Your task to perform on an android device: Open Youtube and go to the subscriptions tab Image 0: 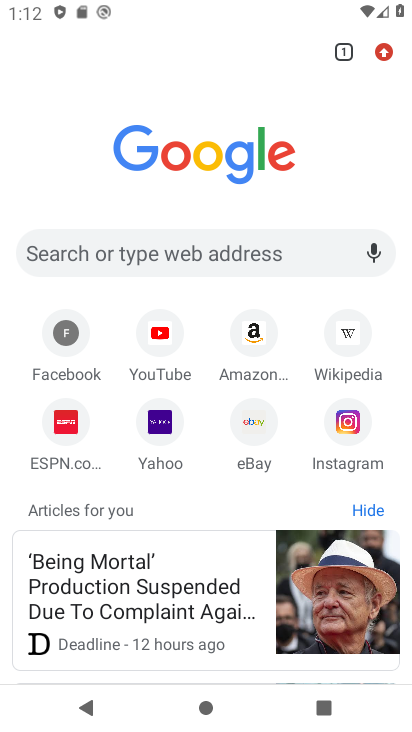
Step 0: press home button
Your task to perform on an android device: Open Youtube and go to the subscriptions tab Image 1: 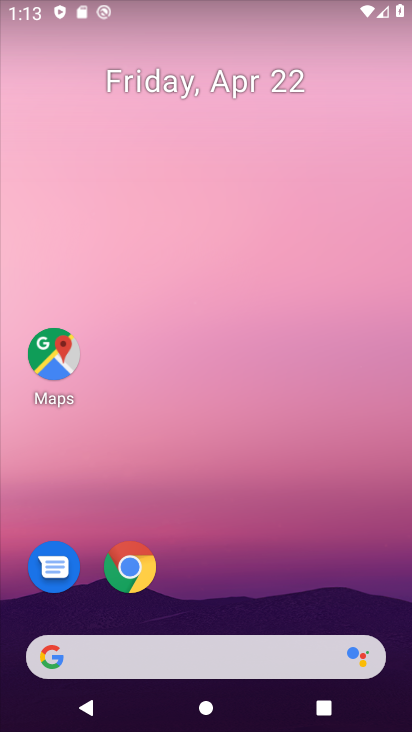
Step 1: drag from (222, 612) to (230, 228)
Your task to perform on an android device: Open Youtube and go to the subscriptions tab Image 2: 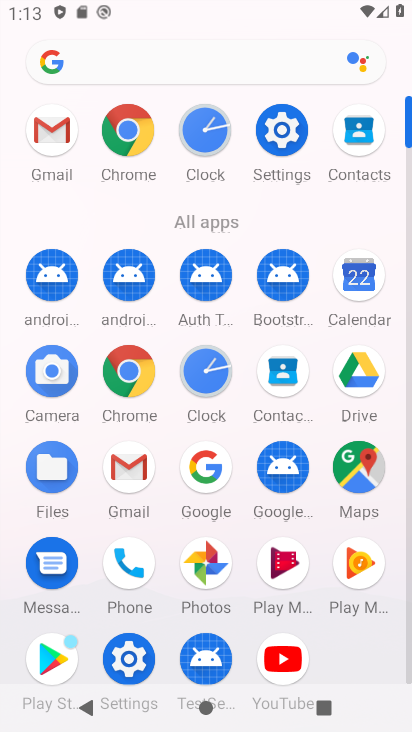
Step 2: click (277, 668)
Your task to perform on an android device: Open Youtube and go to the subscriptions tab Image 3: 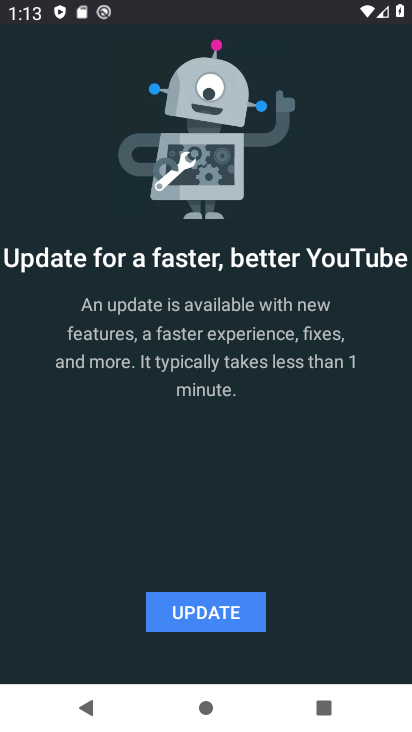
Step 3: click (239, 611)
Your task to perform on an android device: Open Youtube and go to the subscriptions tab Image 4: 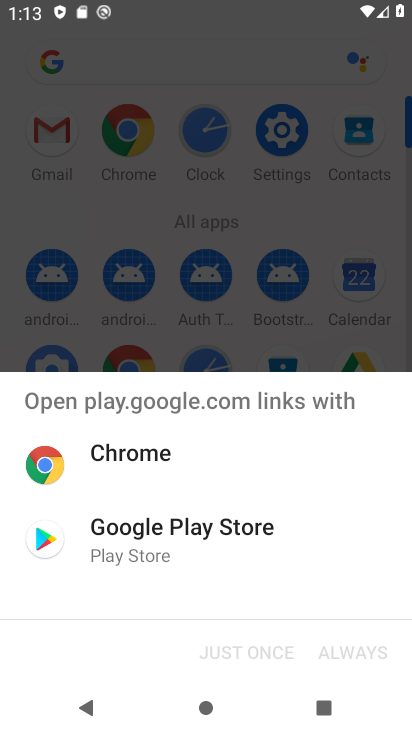
Step 4: click (224, 539)
Your task to perform on an android device: Open Youtube and go to the subscriptions tab Image 5: 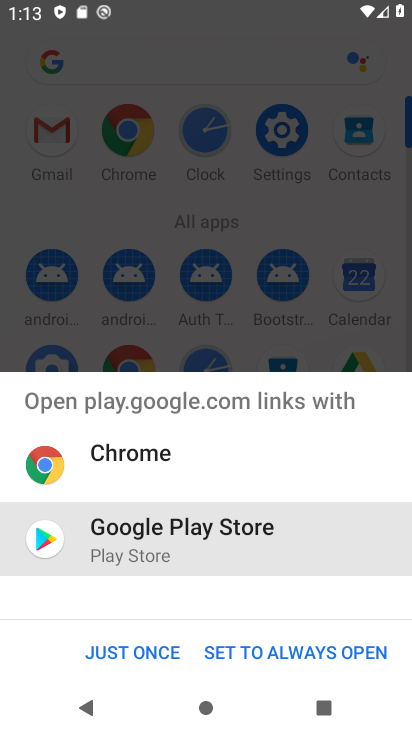
Step 5: click (132, 647)
Your task to perform on an android device: Open Youtube and go to the subscriptions tab Image 6: 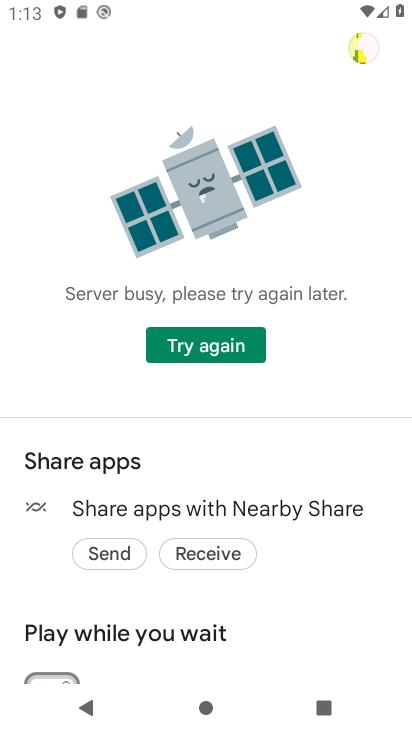
Step 6: click (220, 352)
Your task to perform on an android device: Open Youtube and go to the subscriptions tab Image 7: 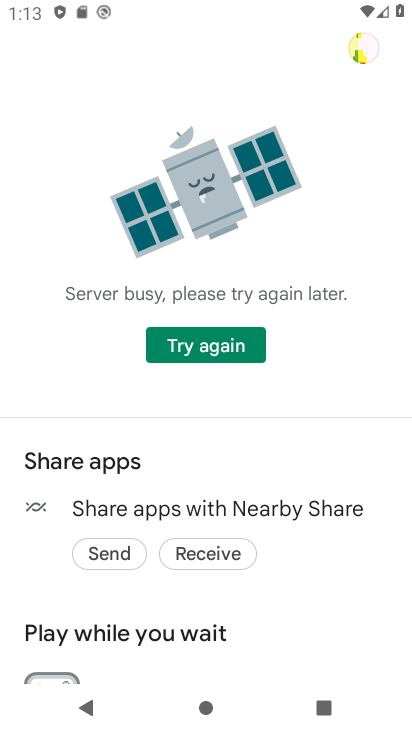
Step 7: click (220, 352)
Your task to perform on an android device: Open Youtube and go to the subscriptions tab Image 8: 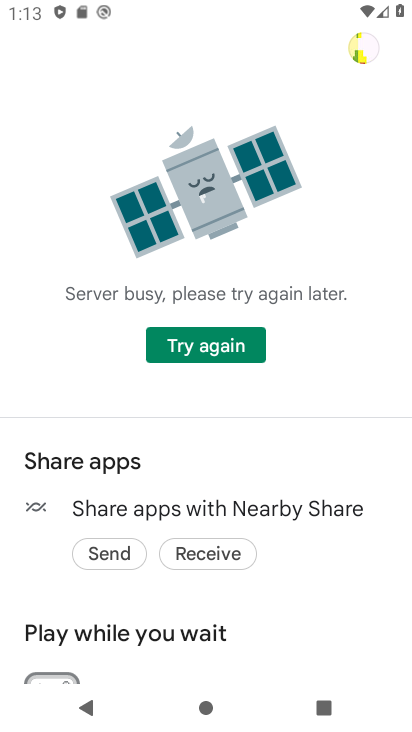
Step 8: click (220, 352)
Your task to perform on an android device: Open Youtube and go to the subscriptions tab Image 9: 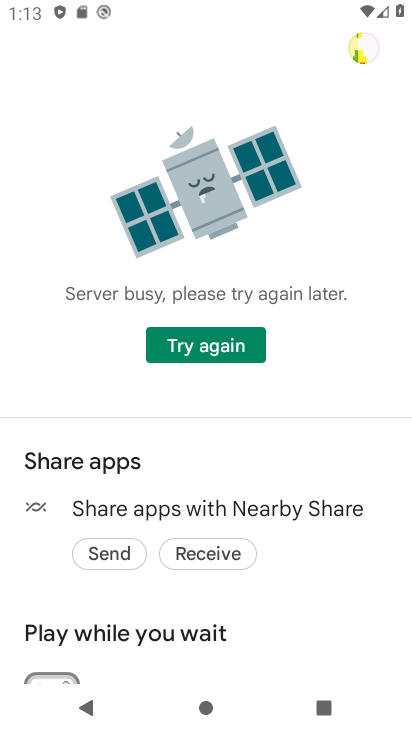
Step 9: click (220, 352)
Your task to perform on an android device: Open Youtube and go to the subscriptions tab Image 10: 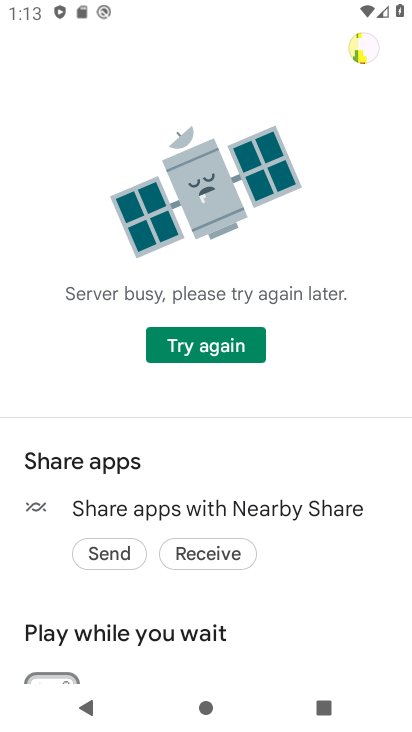
Step 10: click (220, 351)
Your task to perform on an android device: Open Youtube and go to the subscriptions tab Image 11: 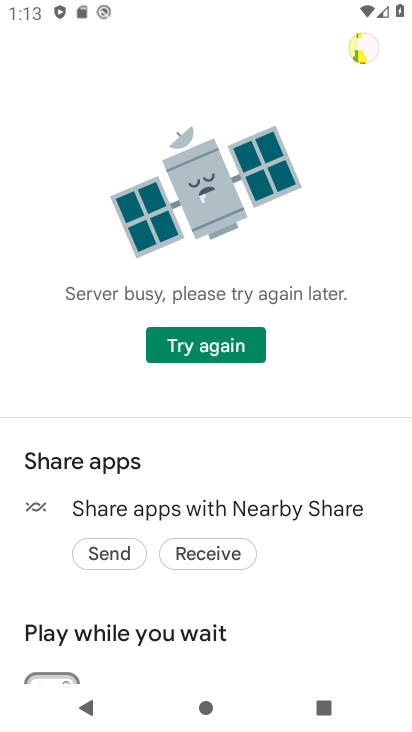
Step 11: click (220, 351)
Your task to perform on an android device: Open Youtube and go to the subscriptions tab Image 12: 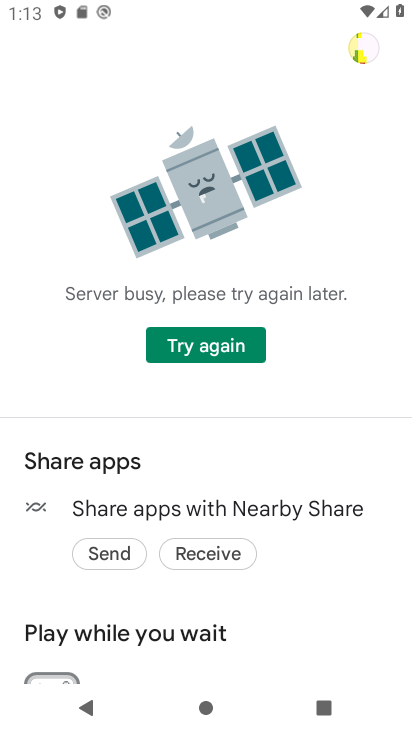
Step 12: task complete